Your task to perform on an android device: Open CNN.com Image 0: 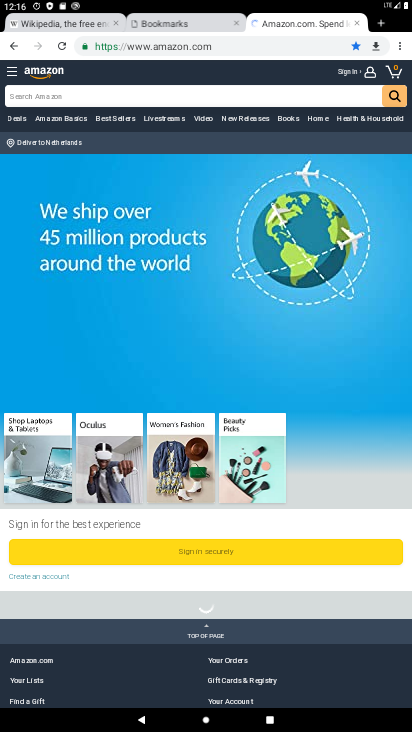
Step 0: press home button
Your task to perform on an android device: Open CNN.com Image 1: 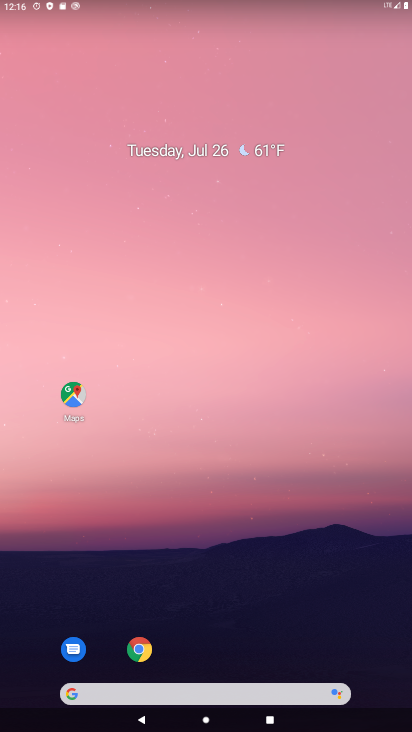
Step 1: drag from (218, 666) to (204, 49)
Your task to perform on an android device: Open CNN.com Image 2: 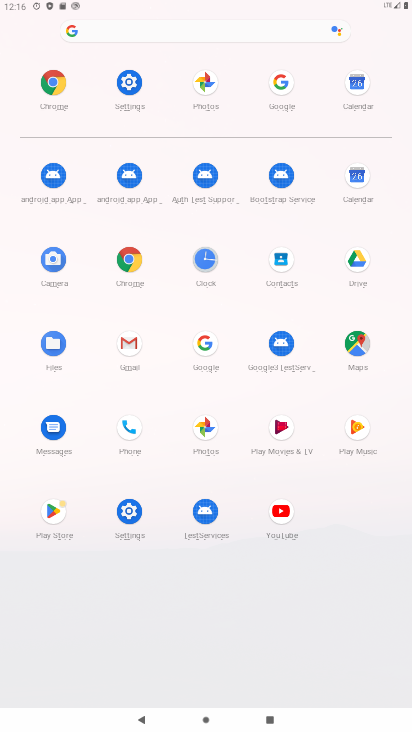
Step 2: click (112, 265)
Your task to perform on an android device: Open CNN.com Image 3: 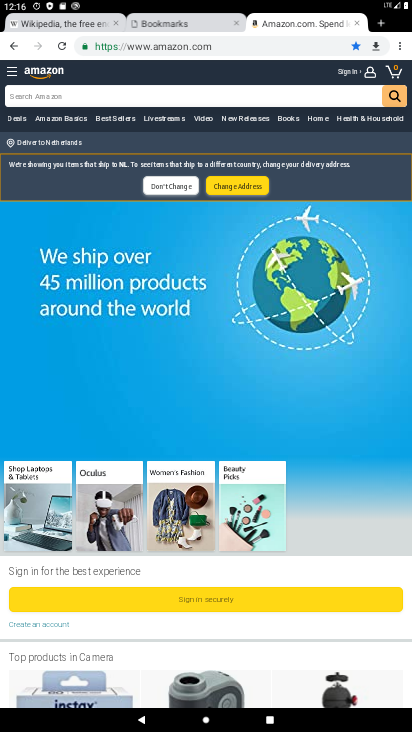
Step 3: click (381, 25)
Your task to perform on an android device: Open CNN.com Image 4: 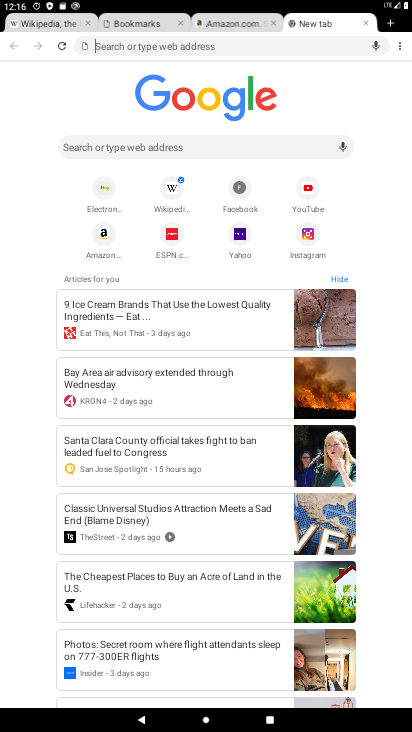
Step 4: click (219, 138)
Your task to perform on an android device: Open CNN.com Image 5: 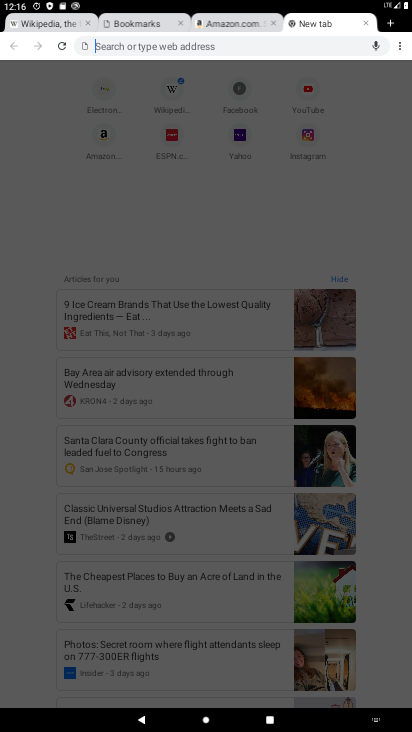
Step 5: type "CNN.com"
Your task to perform on an android device: Open CNN.com Image 6: 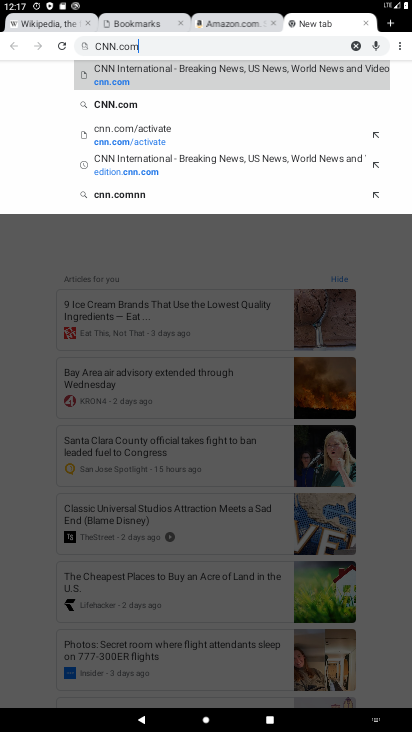
Step 6: type ""
Your task to perform on an android device: Open CNN.com Image 7: 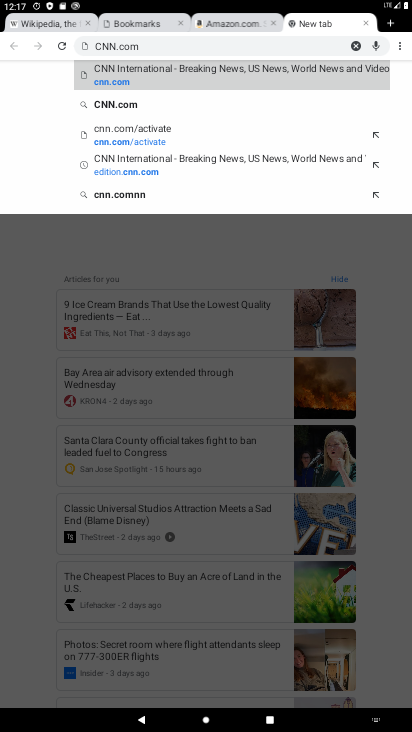
Step 7: click (134, 69)
Your task to perform on an android device: Open CNN.com Image 8: 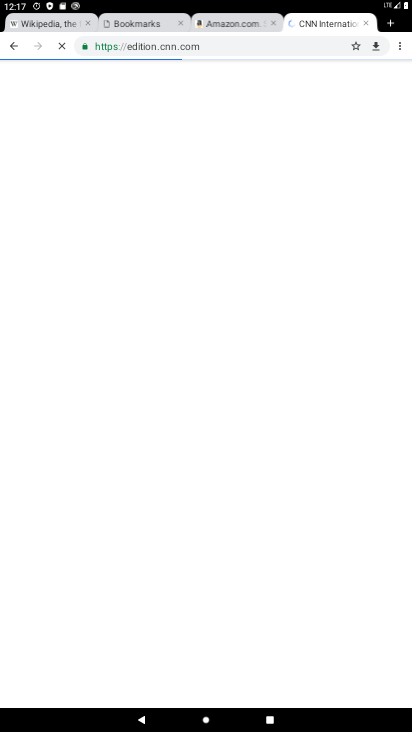
Step 8: task complete